Your task to perform on an android device: Go to network settings Image 0: 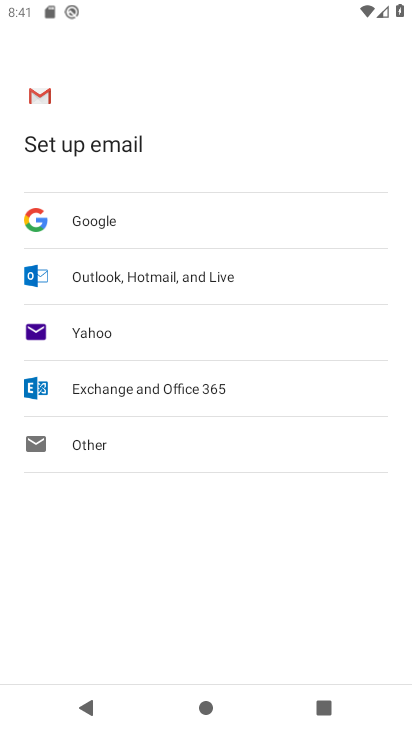
Step 0: press home button
Your task to perform on an android device: Go to network settings Image 1: 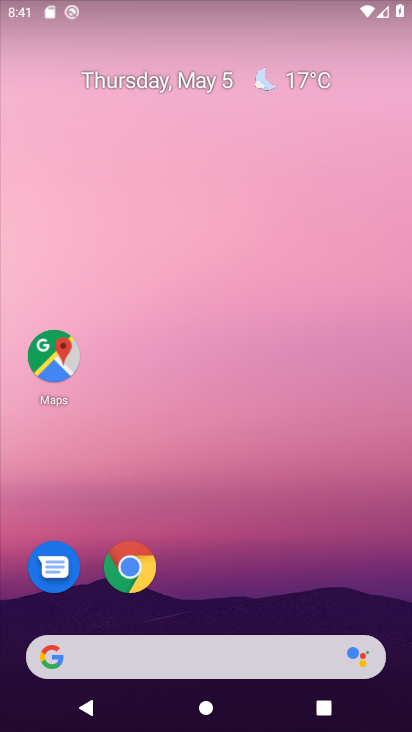
Step 1: drag from (227, 523) to (208, 57)
Your task to perform on an android device: Go to network settings Image 2: 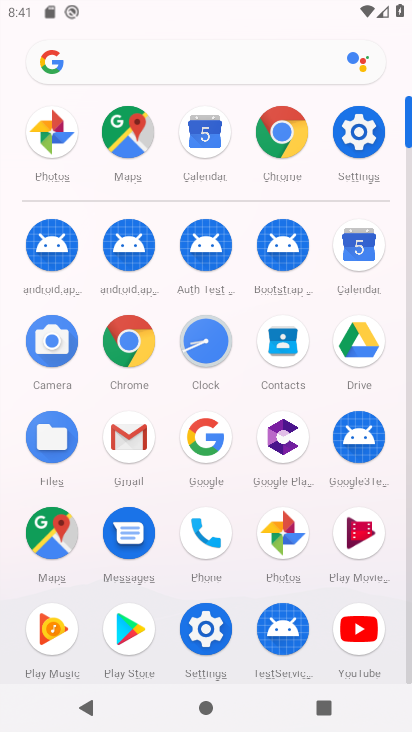
Step 2: click (346, 135)
Your task to perform on an android device: Go to network settings Image 3: 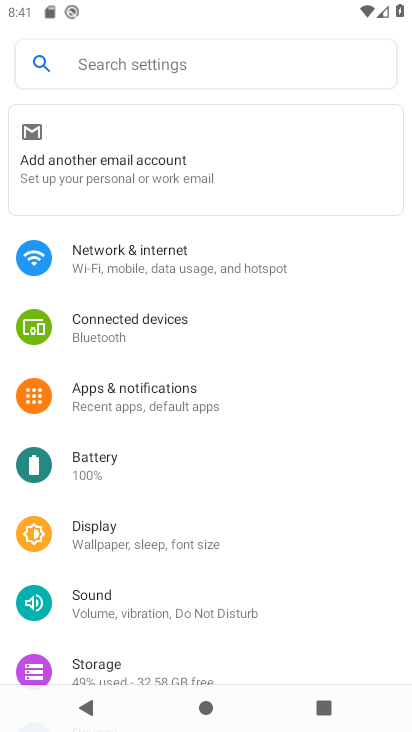
Step 3: click (201, 256)
Your task to perform on an android device: Go to network settings Image 4: 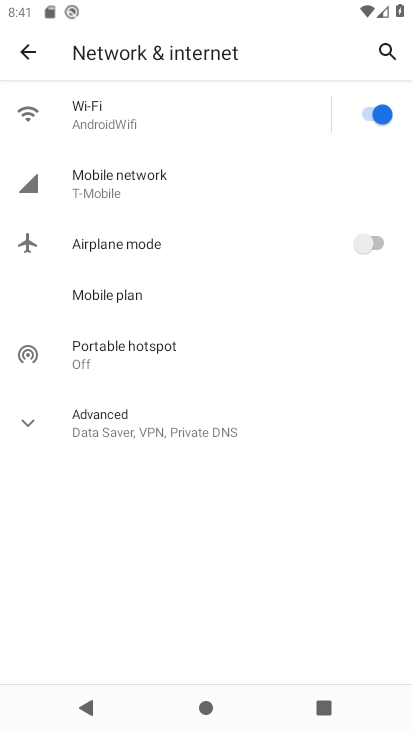
Step 4: task complete